Your task to perform on an android device: make emails show in primary in the gmail app Image 0: 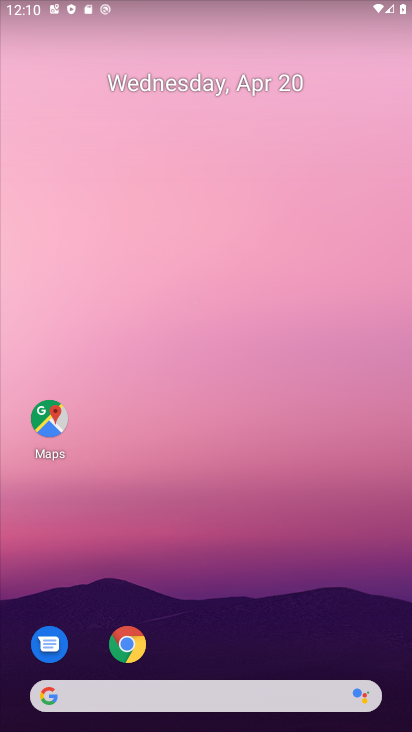
Step 0: drag from (295, 653) to (257, 0)
Your task to perform on an android device: make emails show in primary in the gmail app Image 1: 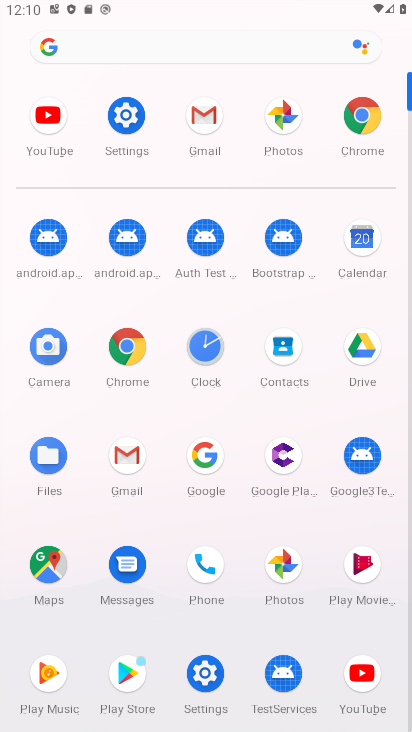
Step 1: click (212, 115)
Your task to perform on an android device: make emails show in primary in the gmail app Image 2: 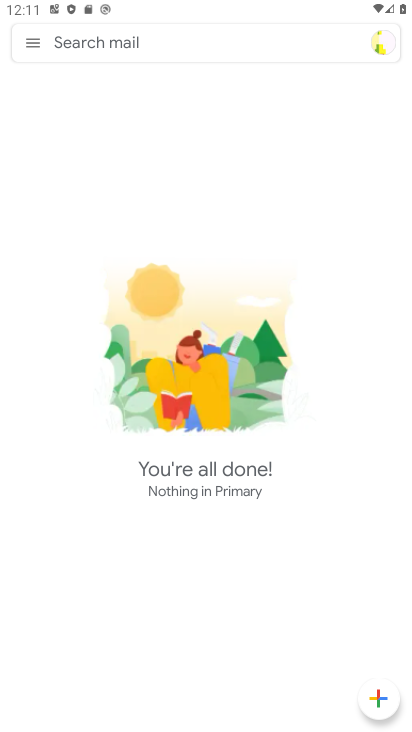
Step 2: click (29, 40)
Your task to perform on an android device: make emails show in primary in the gmail app Image 3: 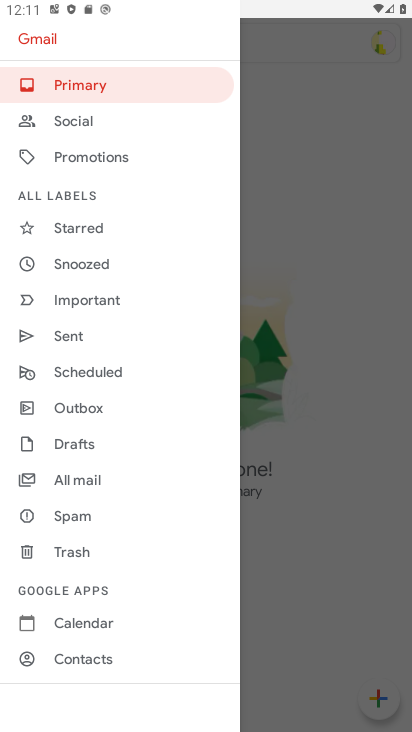
Step 3: drag from (133, 616) to (140, 474)
Your task to perform on an android device: make emails show in primary in the gmail app Image 4: 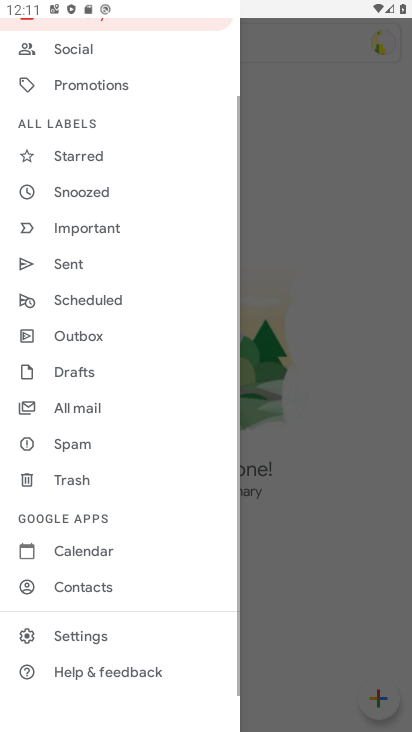
Step 4: click (101, 635)
Your task to perform on an android device: make emails show in primary in the gmail app Image 5: 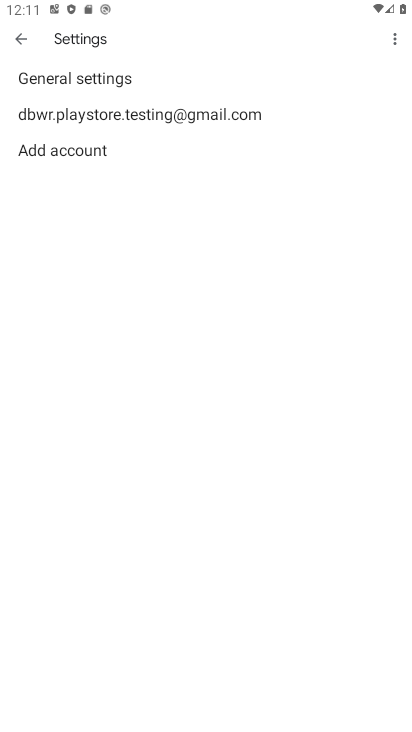
Step 5: click (225, 119)
Your task to perform on an android device: make emails show in primary in the gmail app Image 6: 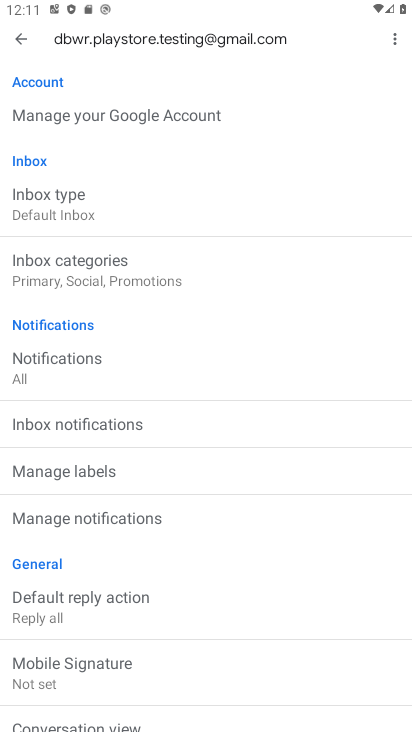
Step 6: click (81, 263)
Your task to perform on an android device: make emails show in primary in the gmail app Image 7: 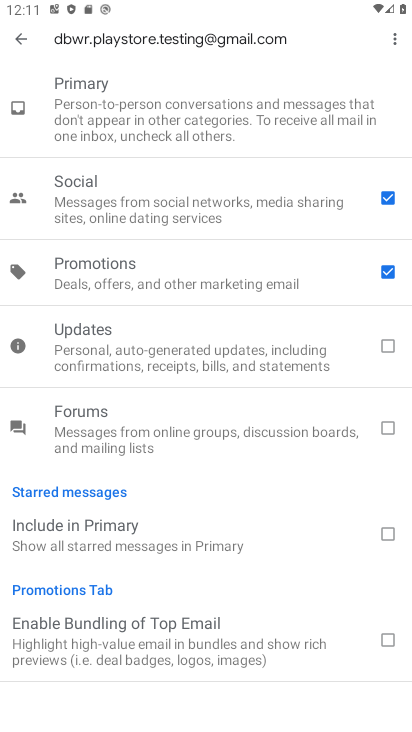
Step 7: click (384, 264)
Your task to perform on an android device: make emails show in primary in the gmail app Image 8: 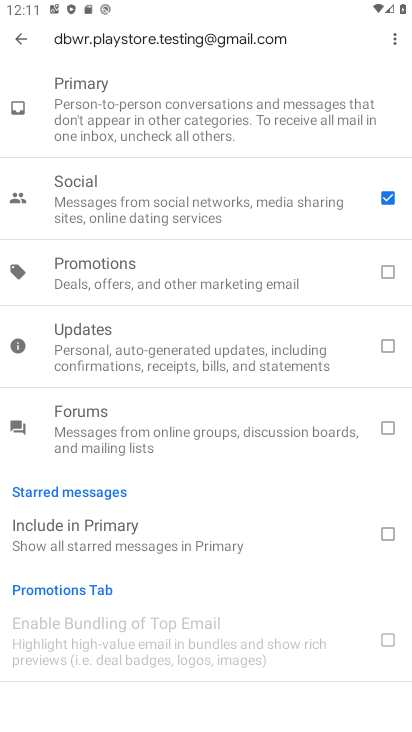
Step 8: click (390, 191)
Your task to perform on an android device: make emails show in primary in the gmail app Image 9: 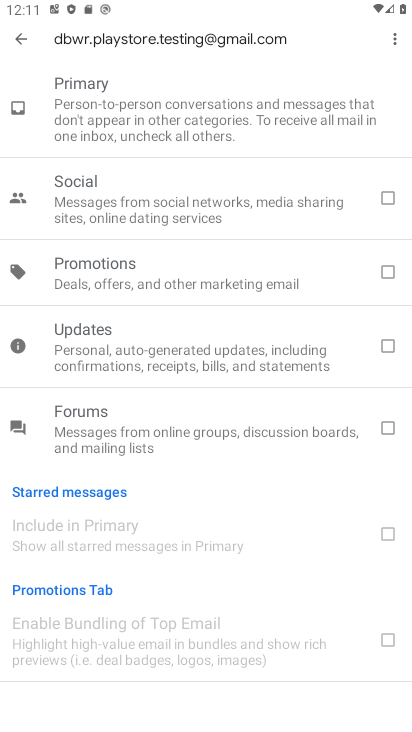
Step 9: click (23, 36)
Your task to perform on an android device: make emails show in primary in the gmail app Image 10: 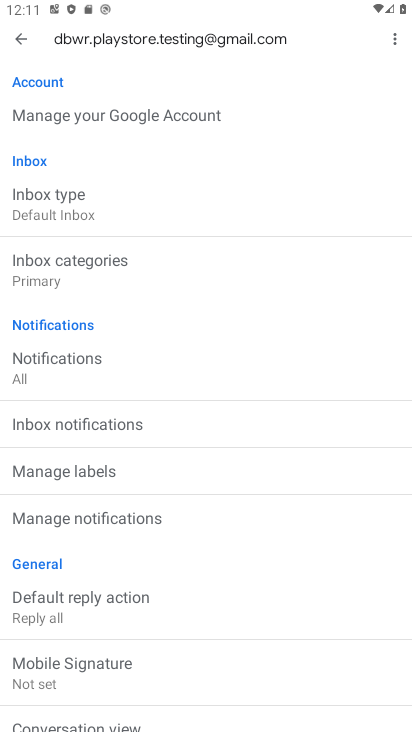
Step 10: task complete